Your task to perform on an android device: manage bookmarks in the chrome app Image 0: 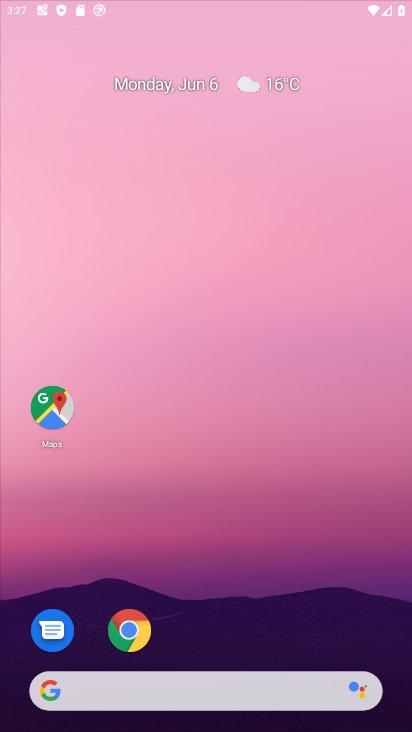
Step 0: drag from (208, 607) to (298, 39)
Your task to perform on an android device: manage bookmarks in the chrome app Image 1: 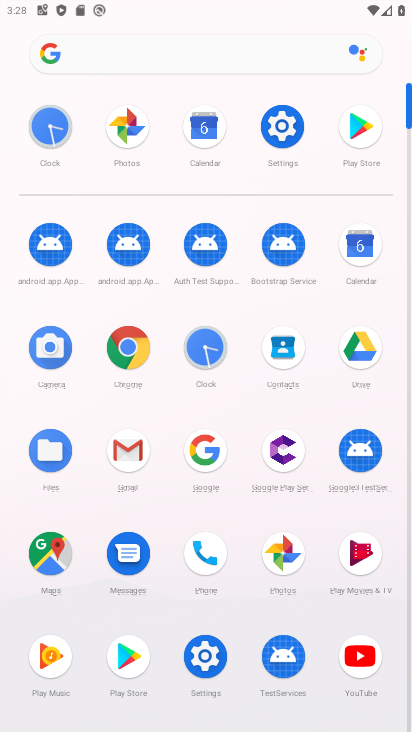
Step 1: click (128, 329)
Your task to perform on an android device: manage bookmarks in the chrome app Image 2: 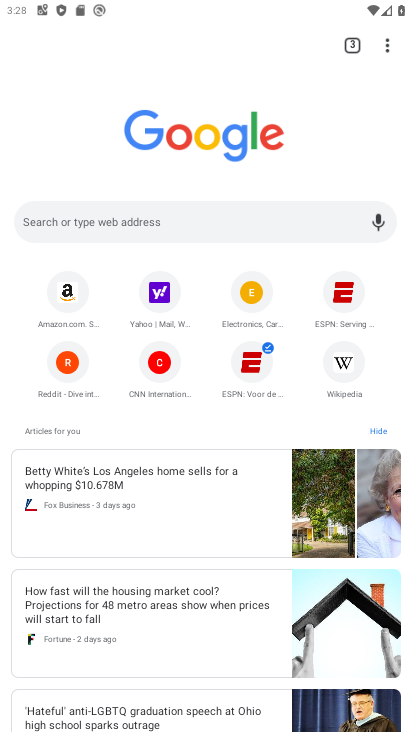
Step 2: drag from (385, 49) to (226, 171)
Your task to perform on an android device: manage bookmarks in the chrome app Image 3: 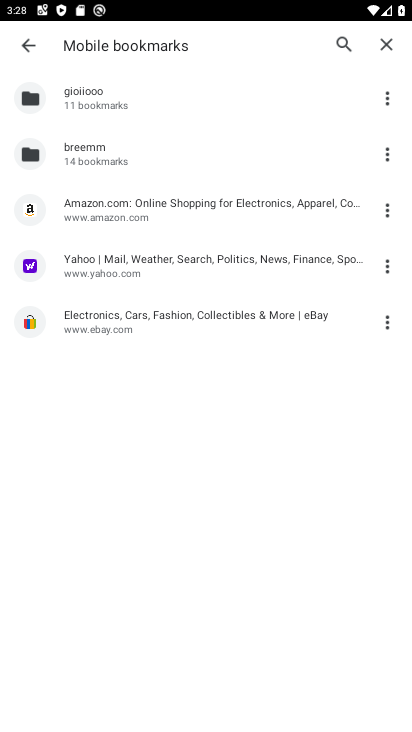
Step 3: click (389, 208)
Your task to perform on an android device: manage bookmarks in the chrome app Image 4: 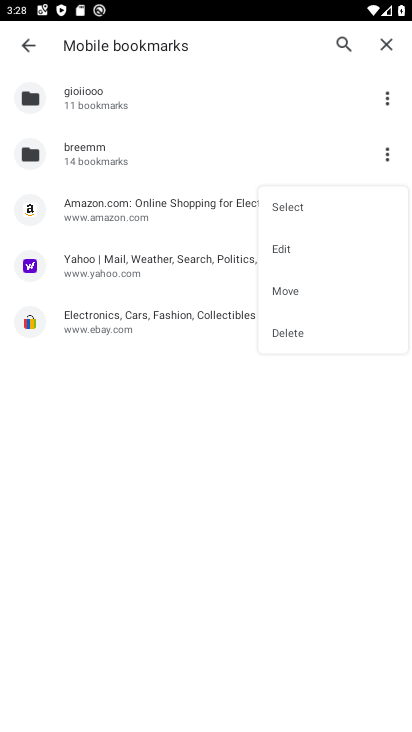
Step 4: click (289, 336)
Your task to perform on an android device: manage bookmarks in the chrome app Image 5: 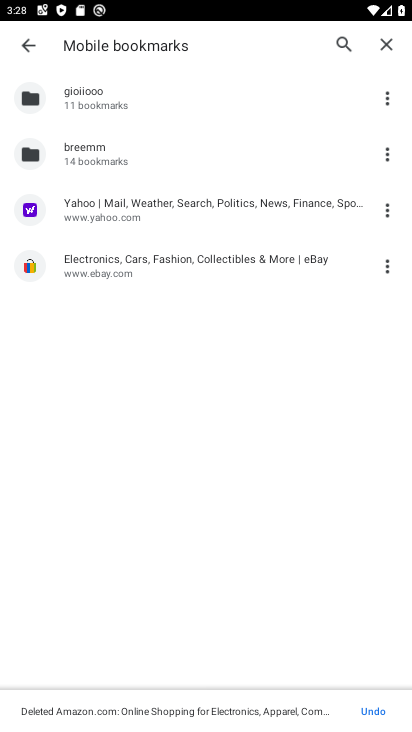
Step 5: task complete